Your task to perform on an android device: Check the weather Image 0: 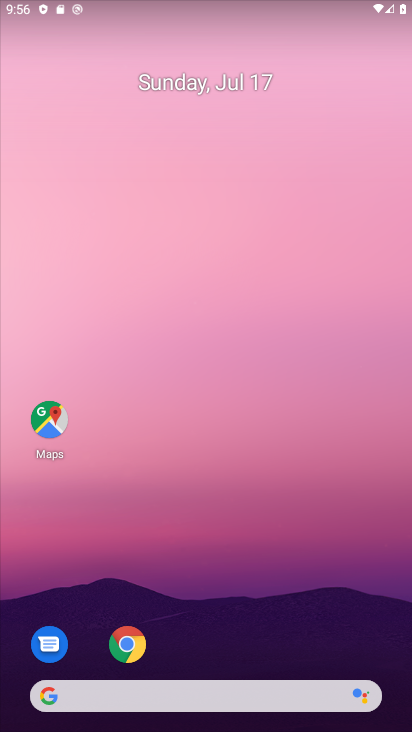
Step 0: drag from (228, 658) to (317, 89)
Your task to perform on an android device: Check the weather Image 1: 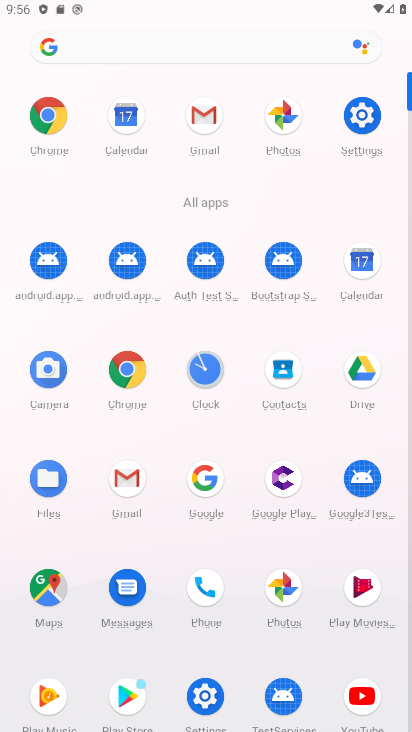
Step 1: click (196, 478)
Your task to perform on an android device: Check the weather Image 2: 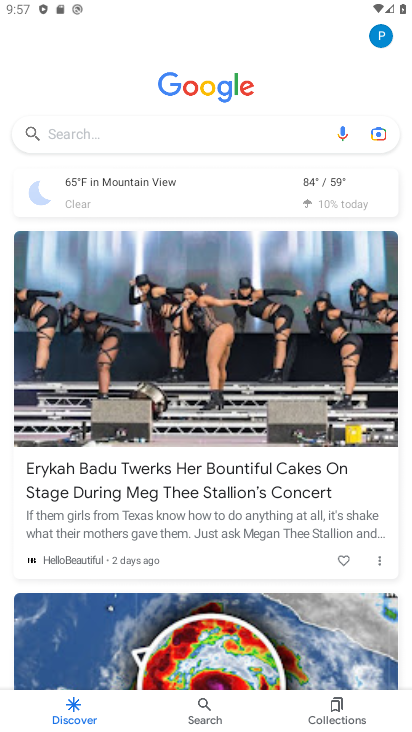
Step 2: click (108, 187)
Your task to perform on an android device: Check the weather Image 3: 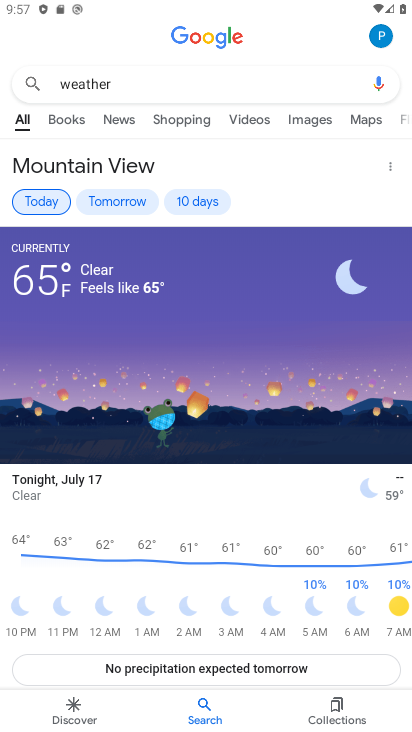
Step 3: task complete